Your task to perform on an android device: Show me popular games on the Play Store Image 0: 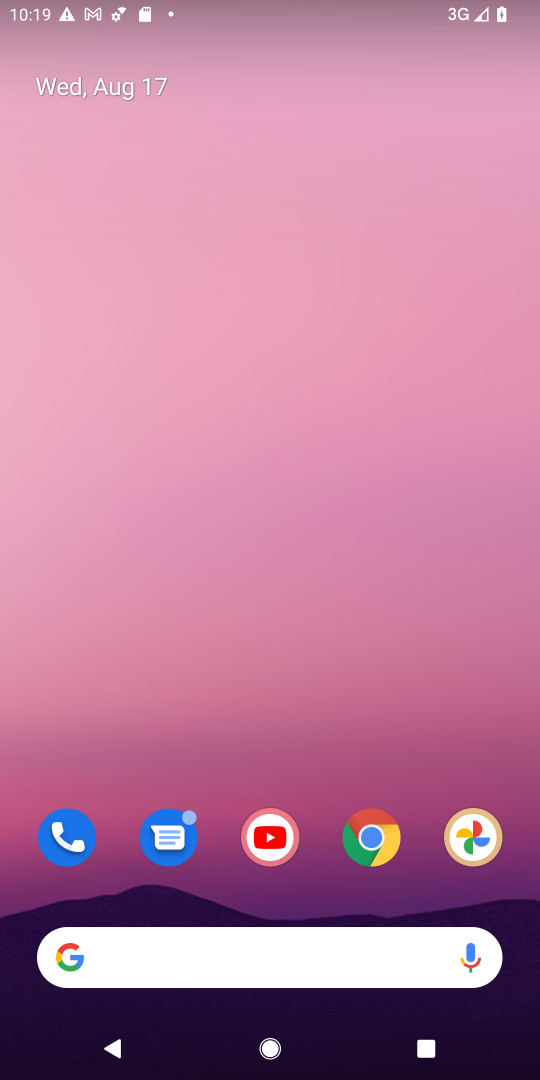
Step 0: drag from (242, 968) to (363, 303)
Your task to perform on an android device: Show me popular games on the Play Store Image 1: 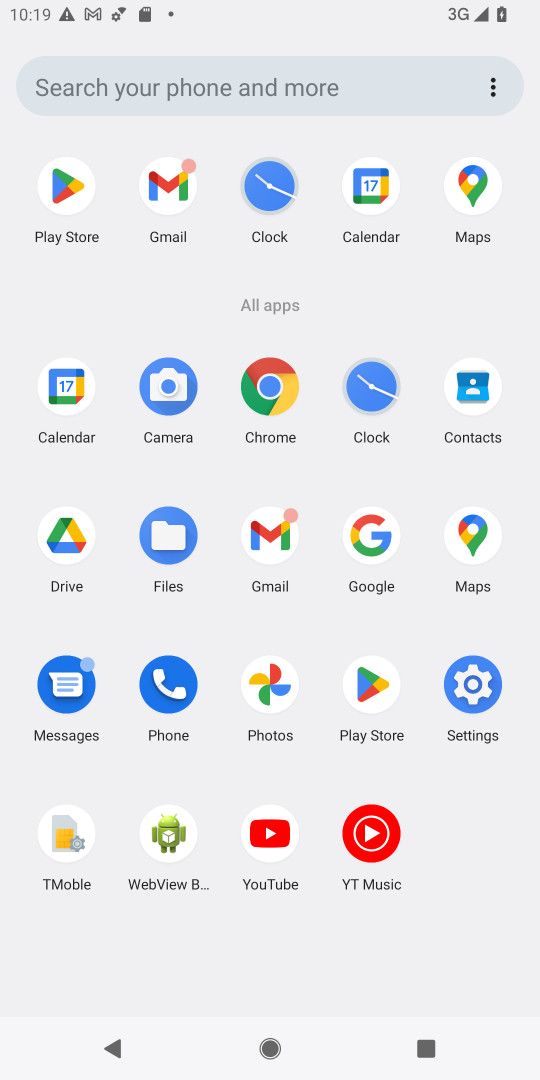
Step 1: click (66, 191)
Your task to perform on an android device: Show me popular games on the Play Store Image 2: 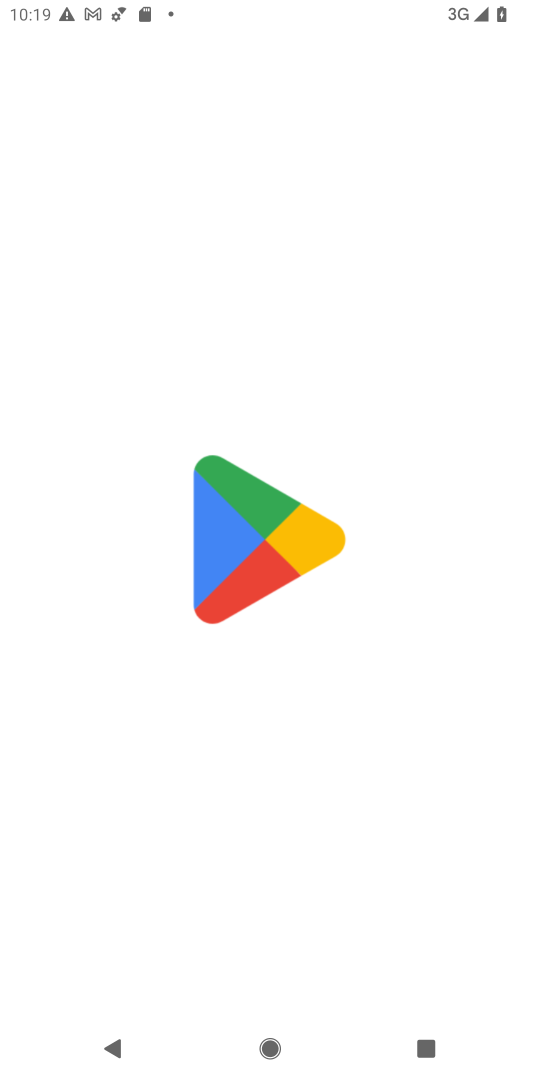
Step 2: click (325, 285)
Your task to perform on an android device: Show me popular games on the Play Store Image 3: 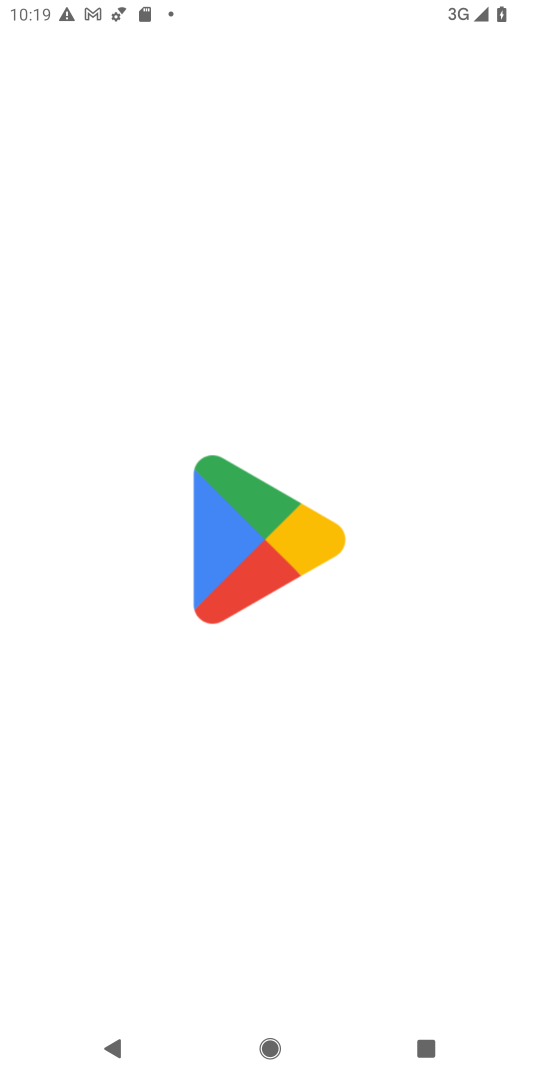
Step 3: click (386, 424)
Your task to perform on an android device: Show me popular games on the Play Store Image 4: 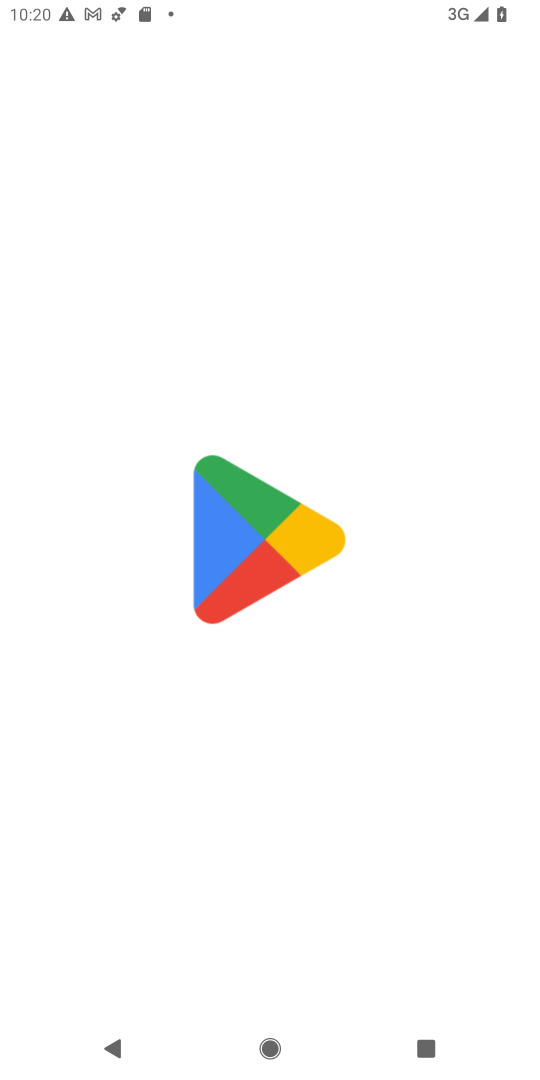
Step 4: task complete